Your task to perform on an android device: change the upload size in google photos Image 0: 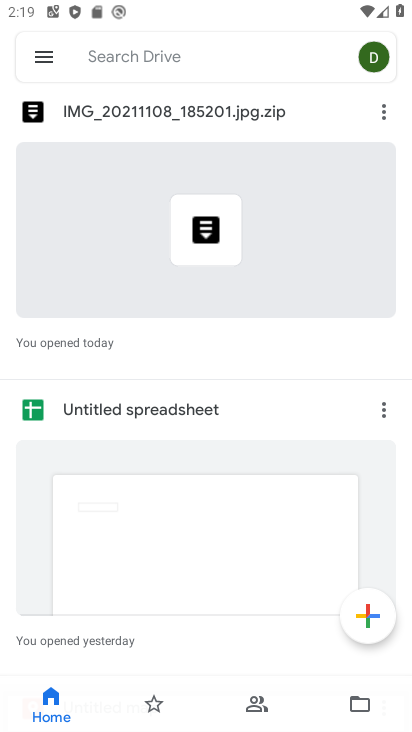
Step 0: press home button
Your task to perform on an android device: change the upload size in google photos Image 1: 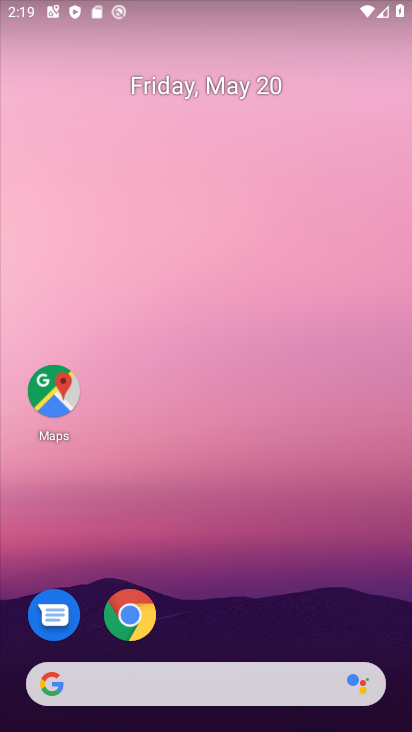
Step 1: drag from (241, 590) to (254, 241)
Your task to perform on an android device: change the upload size in google photos Image 2: 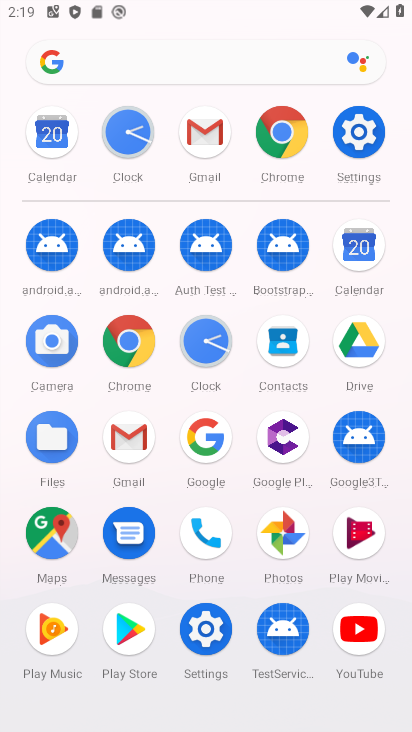
Step 2: click (278, 534)
Your task to perform on an android device: change the upload size in google photos Image 3: 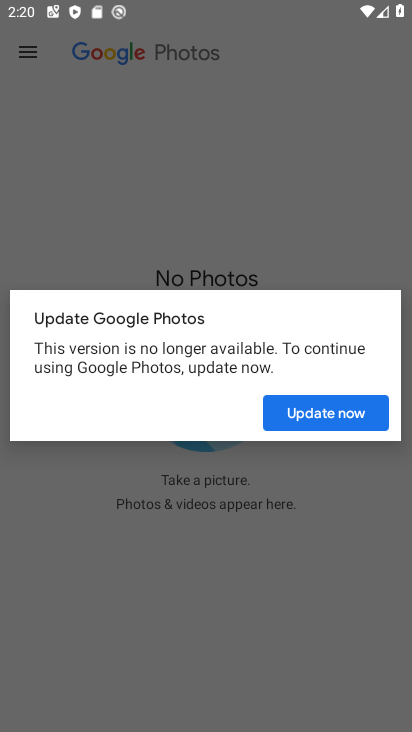
Step 3: click (340, 396)
Your task to perform on an android device: change the upload size in google photos Image 4: 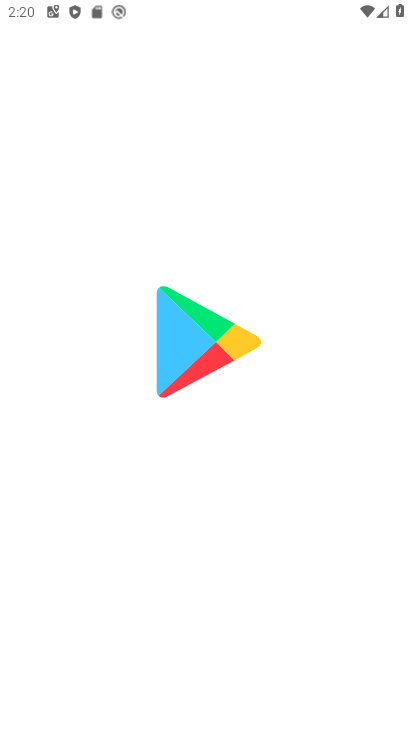
Step 4: press back button
Your task to perform on an android device: change the upload size in google photos Image 5: 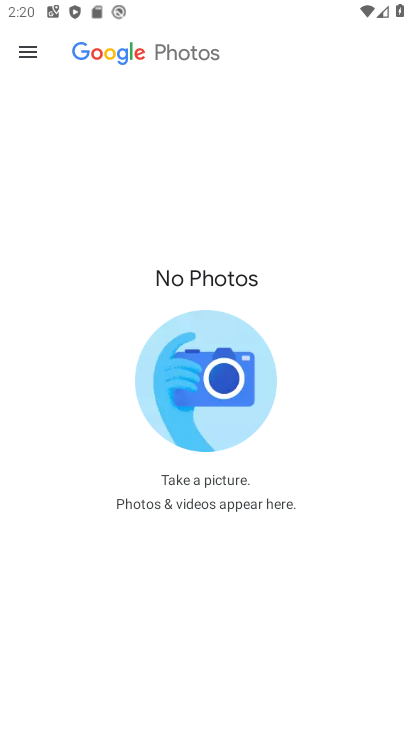
Step 5: click (22, 56)
Your task to perform on an android device: change the upload size in google photos Image 6: 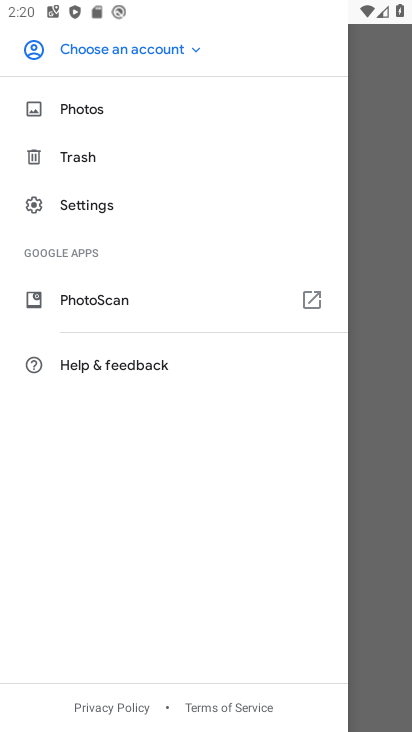
Step 6: click (119, 197)
Your task to perform on an android device: change the upload size in google photos Image 7: 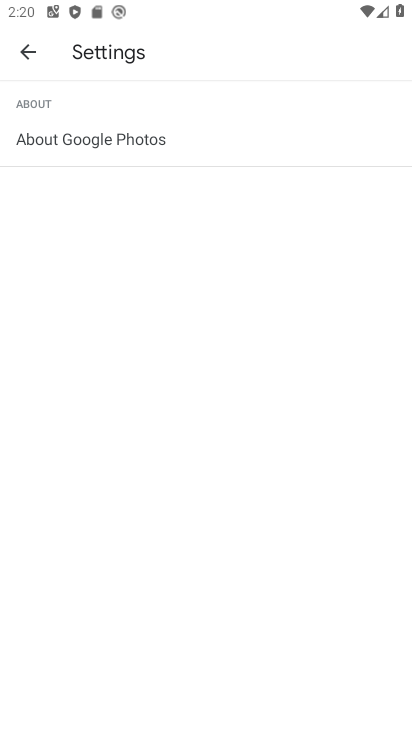
Step 7: click (16, 41)
Your task to perform on an android device: change the upload size in google photos Image 8: 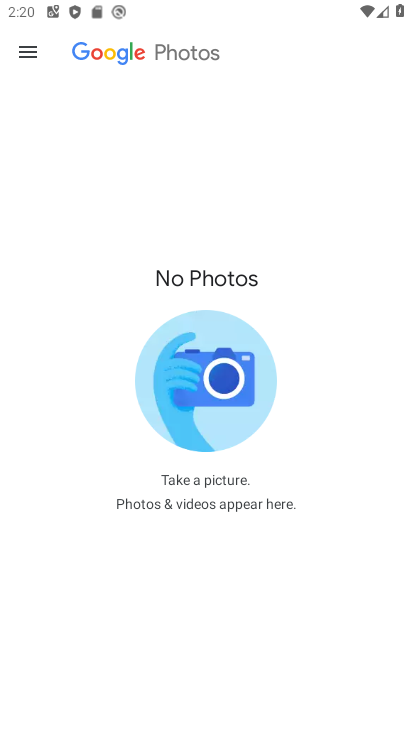
Step 8: click (18, 43)
Your task to perform on an android device: change the upload size in google photos Image 9: 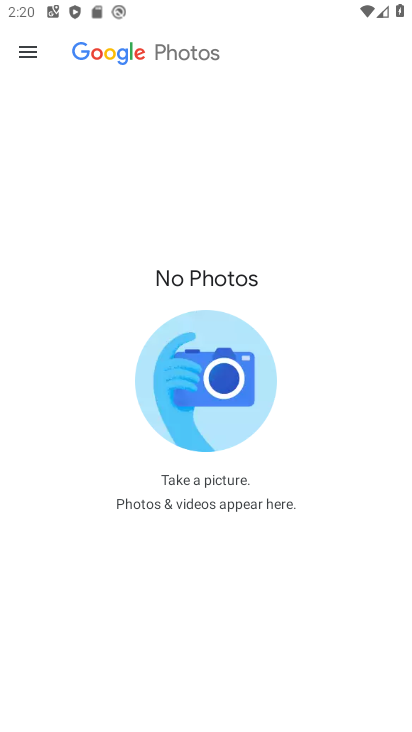
Step 9: click (27, 46)
Your task to perform on an android device: change the upload size in google photos Image 10: 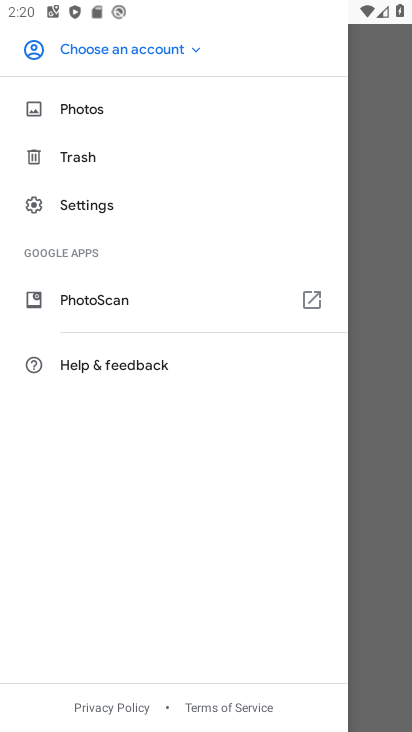
Step 10: click (116, 200)
Your task to perform on an android device: change the upload size in google photos Image 11: 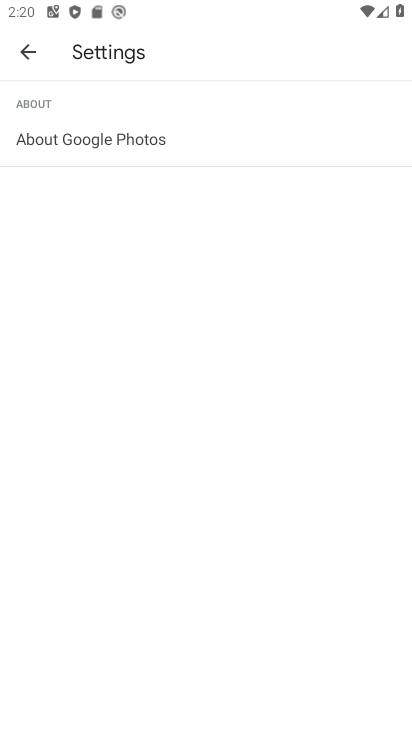
Step 11: click (115, 126)
Your task to perform on an android device: change the upload size in google photos Image 12: 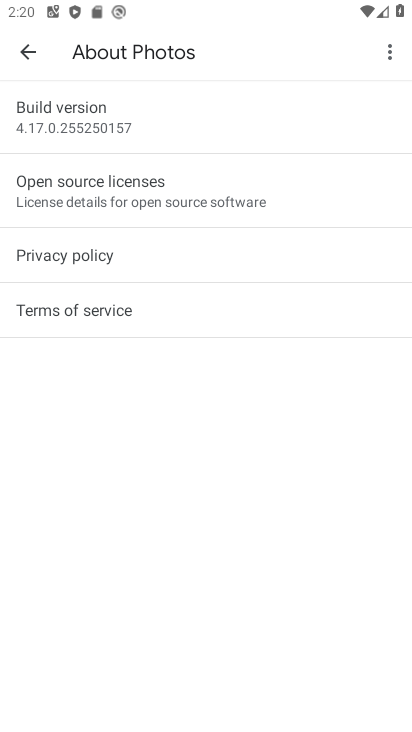
Step 12: task complete